Your task to perform on an android device: What's the weather? Image 0: 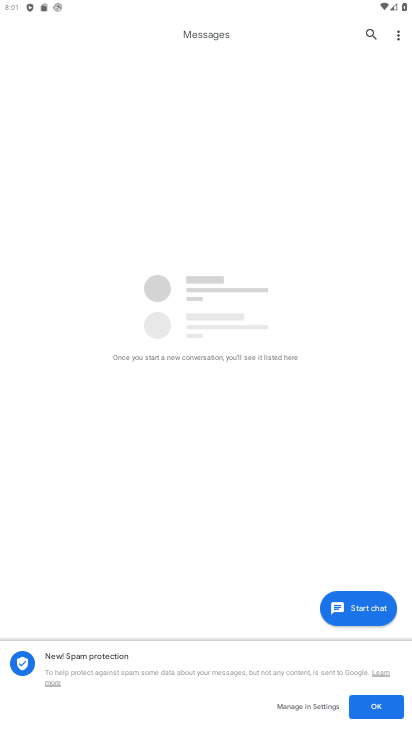
Step 0: press home button
Your task to perform on an android device: What's the weather? Image 1: 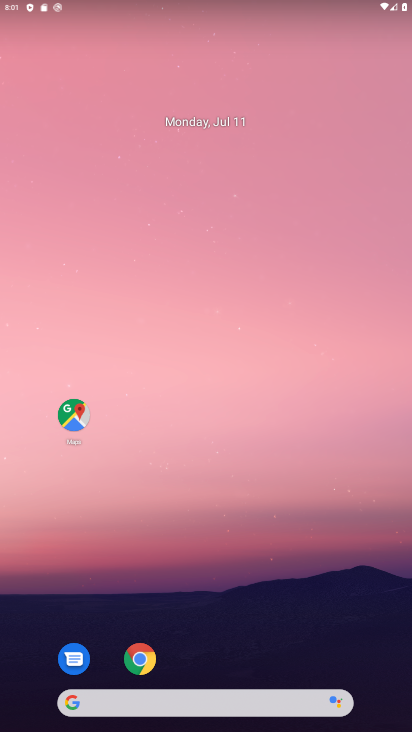
Step 1: click (96, 700)
Your task to perform on an android device: What's the weather? Image 2: 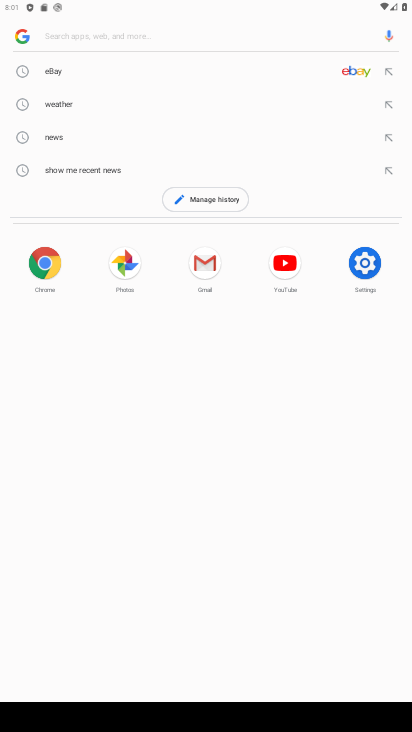
Step 2: type "What's the weather?"
Your task to perform on an android device: What's the weather? Image 3: 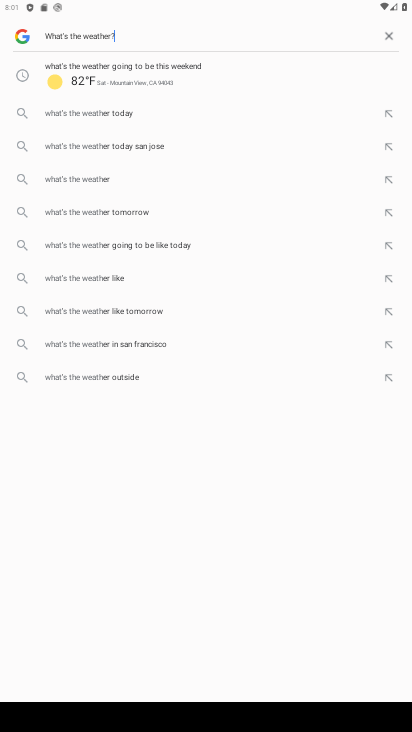
Step 3: type ""
Your task to perform on an android device: What's the weather? Image 4: 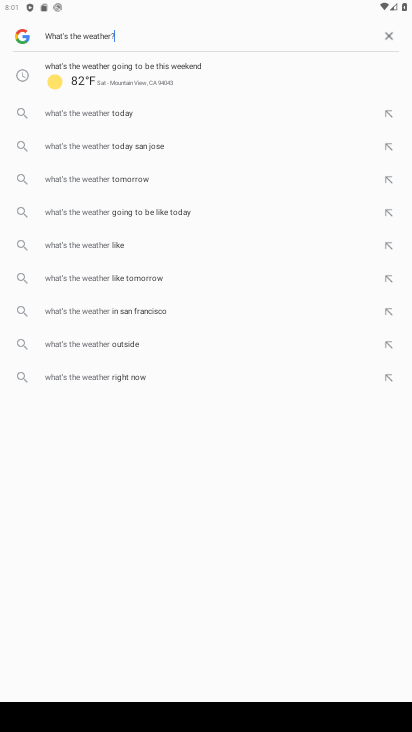
Step 4: task complete